Your task to perform on an android device: Find coffee shops on Maps Image 0: 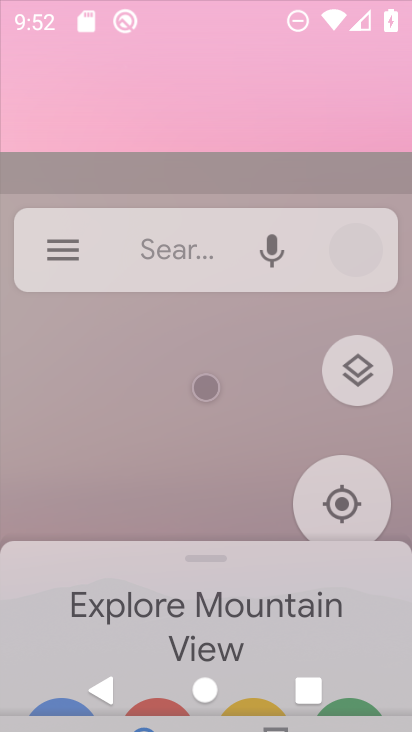
Step 0: click (323, 131)
Your task to perform on an android device: Find coffee shops on Maps Image 1: 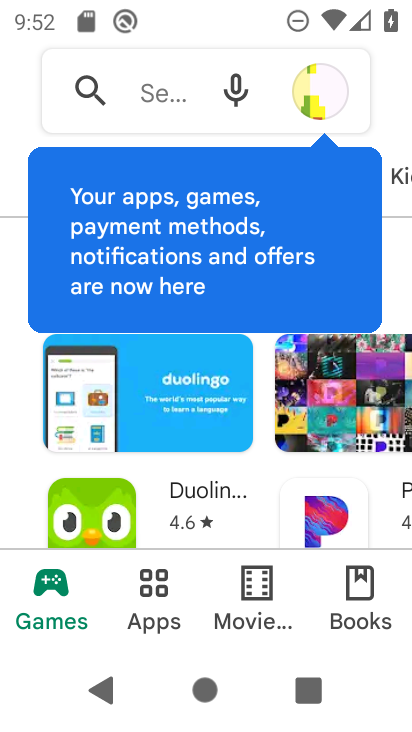
Step 1: press home button
Your task to perform on an android device: Find coffee shops on Maps Image 2: 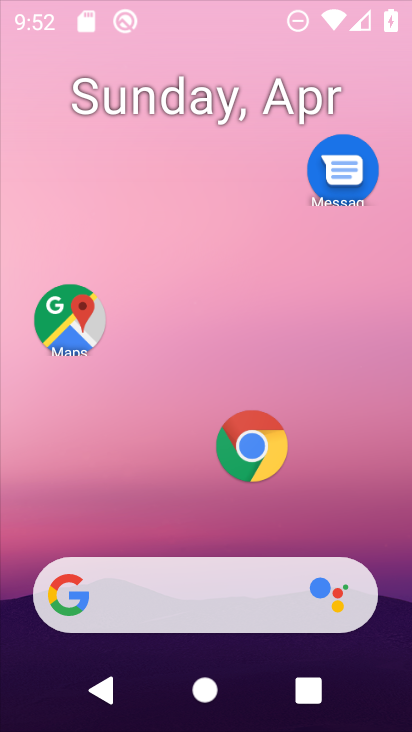
Step 2: drag from (236, 514) to (275, 175)
Your task to perform on an android device: Find coffee shops on Maps Image 3: 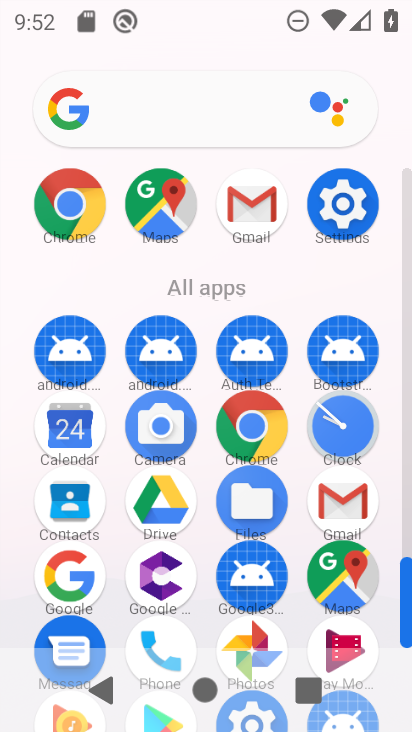
Step 3: click (365, 587)
Your task to perform on an android device: Find coffee shops on Maps Image 4: 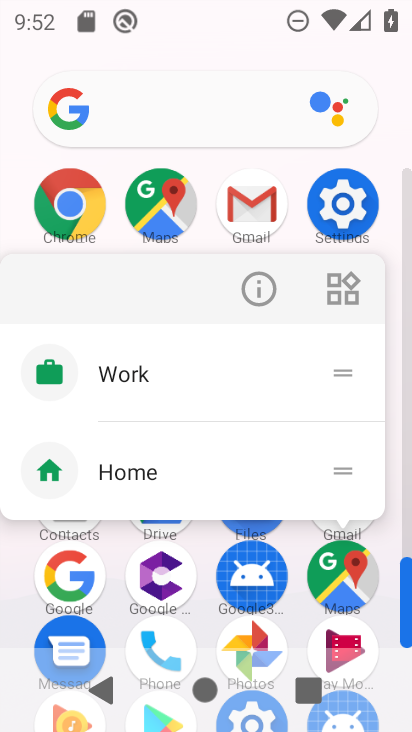
Step 4: click (262, 284)
Your task to perform on an android device: Find coffee shops on Maps Image 5: 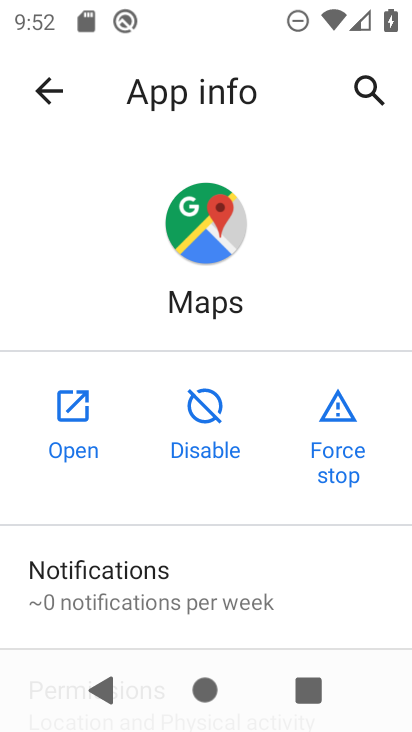
Step 5: click (94, 399)
Your task to perform on an android device: Find coffee shops on Maps Image 6: 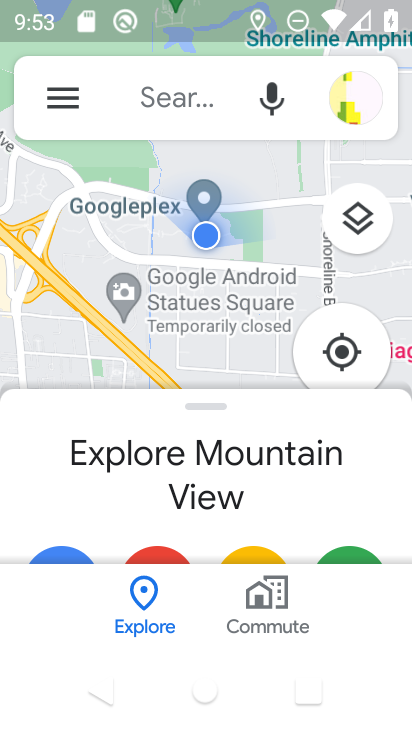
Step 6: drag from (212, 462) to (271, 212)
Your task to perform on an android device: Find coffee shops on Maps Image 7: 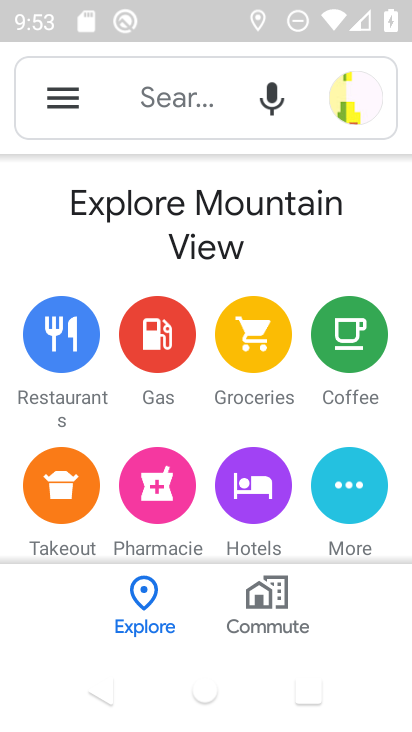
Step 7: click (169, 99)
Your task to perform on an android device: Find coffee shops on Maps Image 8: 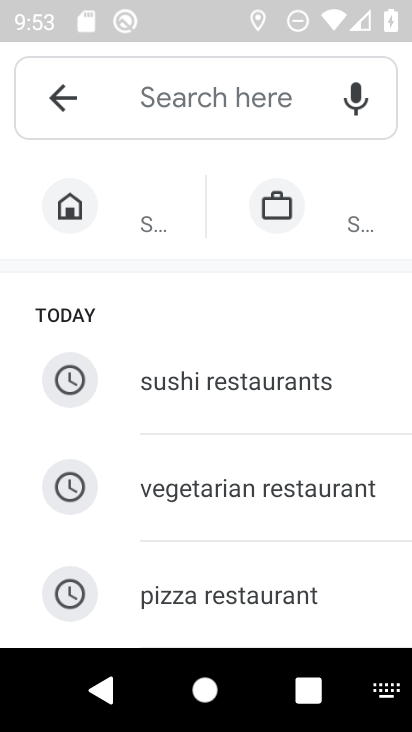
Step 8: drag from (188, 578) to (275, 235)
Your task to perform on an android device: Find coffee shops on Maps Image 9: 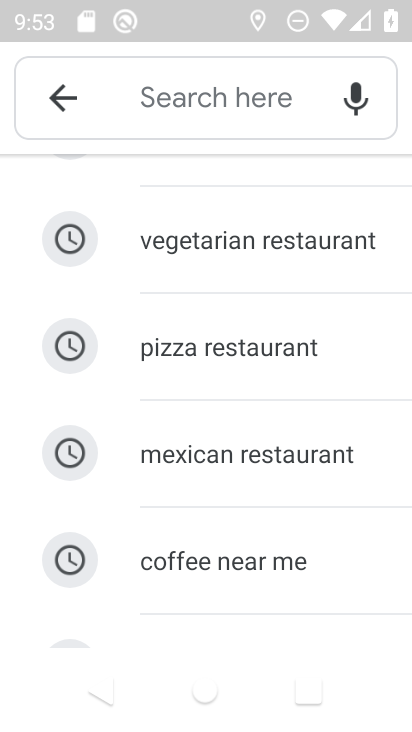
Step 9: click (235, 561)
Your task to perform on an android device: Find coffee shops on Maps Image 10: 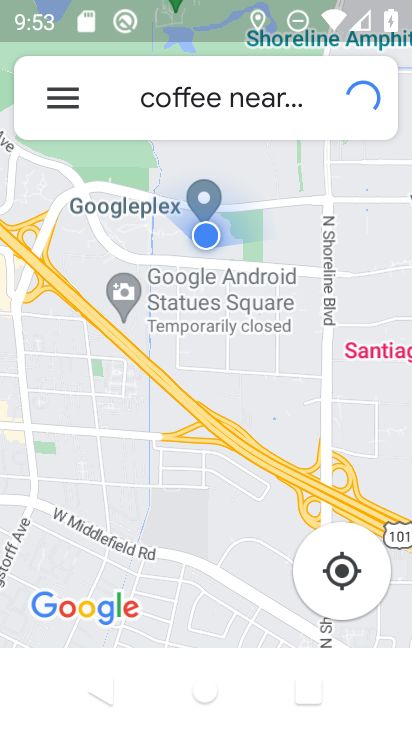
Step 10: drag from (201, 502) to (285, 161)
Your task to perform on an android device: Find coffee shops on Maps Image 11: 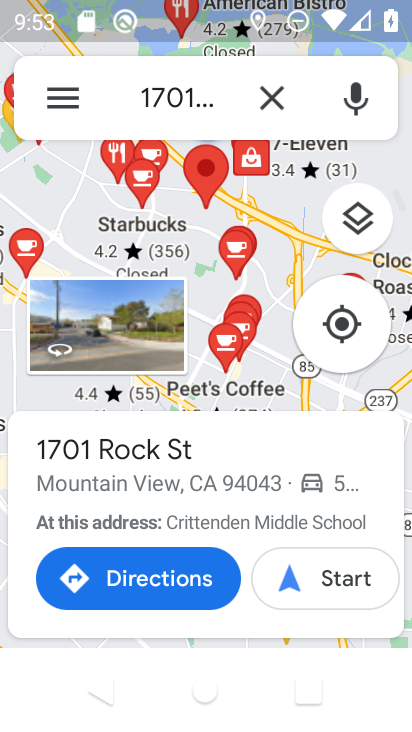
Step 11: click (258, 104)
Your task to perform on an android device: Find coffee shops on Maps Image 12: 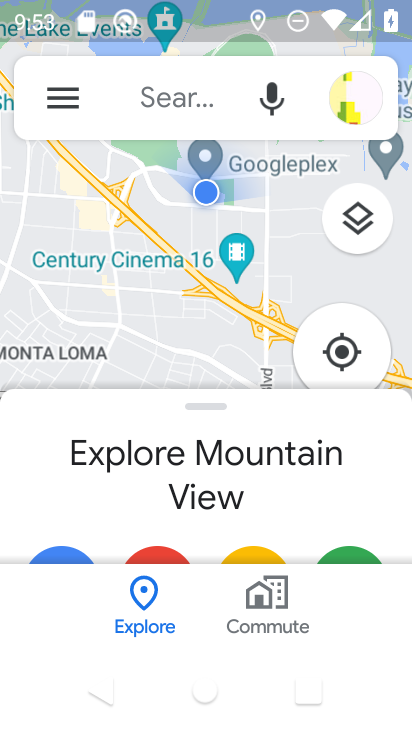
Step 12: click (189, 92)
Your task to perform on an android device: Find coffee shops on Maps Image 13: 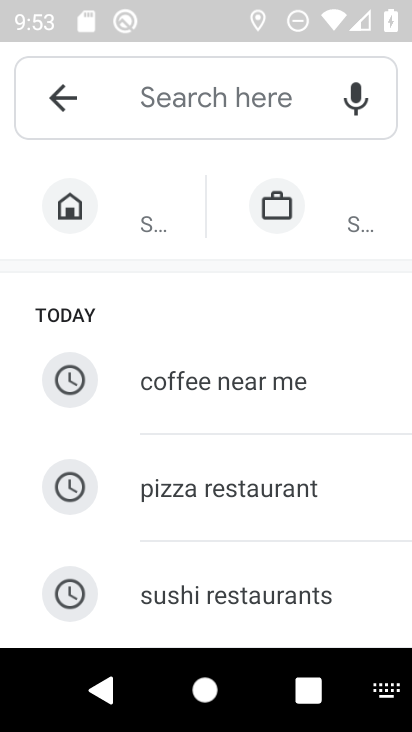
Step 13: click (186, 370)
Your task to perform on an android device: Find coffee shops on Maps Image 14: 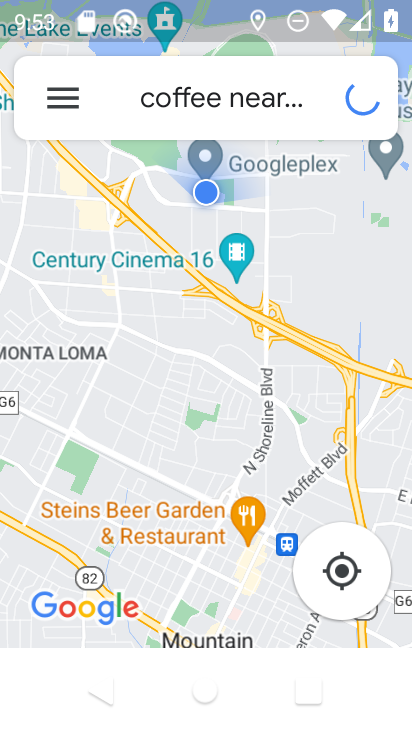
Step 14: task complete